Your task to perform on an android device: turn on data saver in the chrome app Image 0: 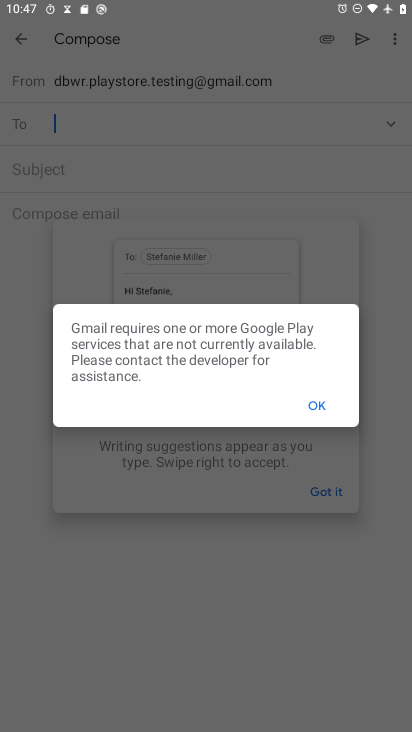
Step 0: press home button
Your task to perform on an android device: turn on data saver in the chrome app Image 1: 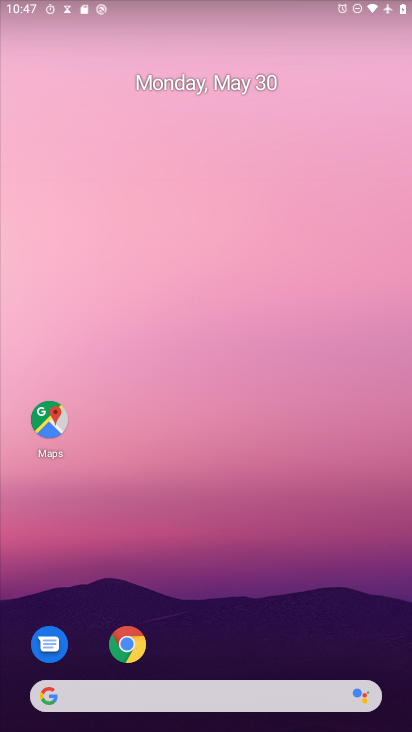
Step 1: drag from (272, 614) to (296, 47)
Your task to perform on an android device: turn on data saver in the chrome app Image 2: 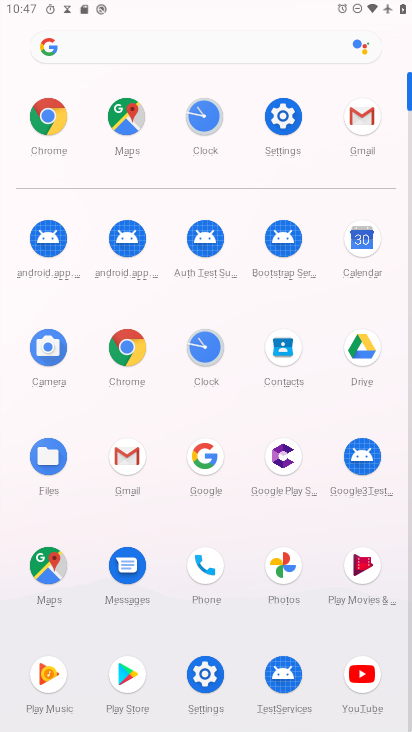
Step 2: click (127, 353)
Your task to perform on an android device: turn on data saver in the chrome app Image 3: 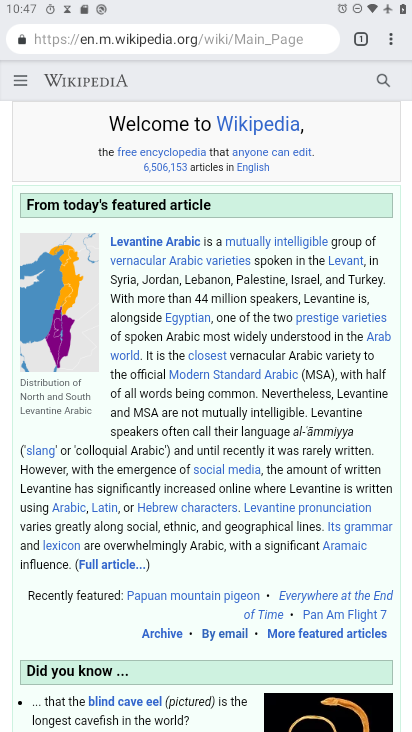
Step 3: click (386, 49)
Your task to perform on an android device: turn on data saver in the chrome app Image 4: 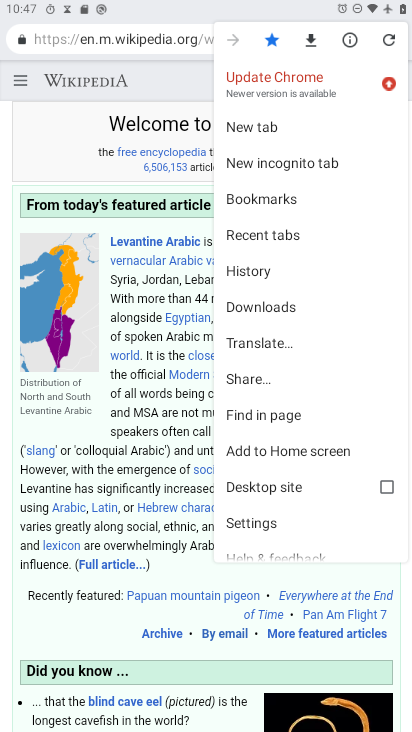
Step 4: drag from (302, 419) to (315, 207)
Your task to perform on an android device: turn on data saver in the chrome app Image 5: 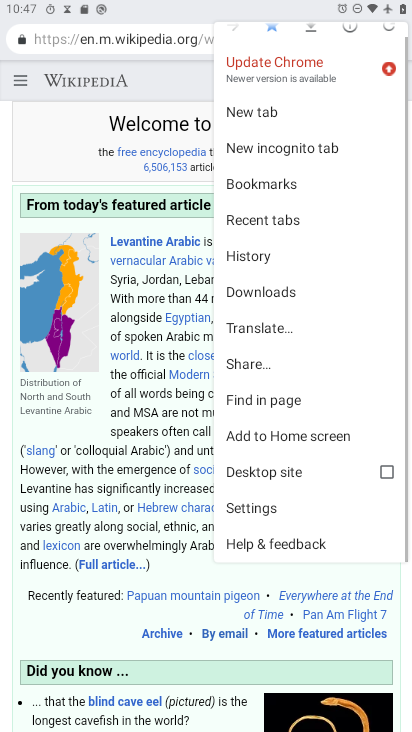
Step 5: click (269, 513)
Your task to perform on an android device: turn on data saver in the chrome app Image 6: 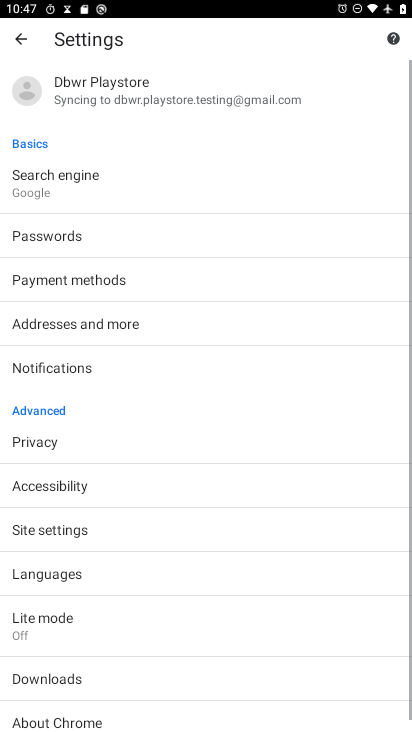
Step 6: drag from (202, 582) to (205, 344)
Your task to perform on an android device: turn on data saver in the chrome app Image 7: 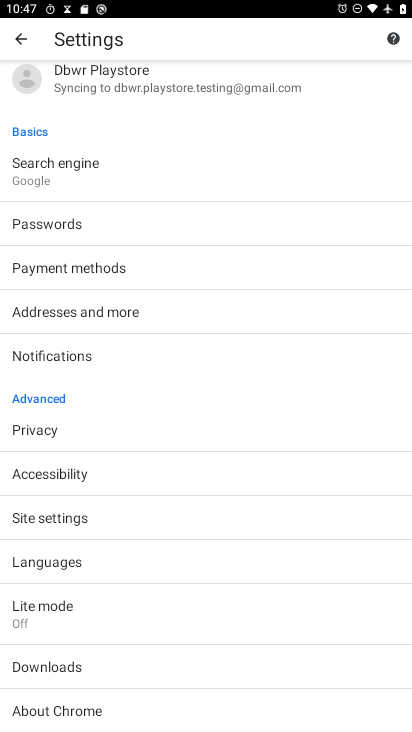
Step 7: click (77, 630)
Your task to perform on an android device: turn on data saver in the chrome app Image 8: 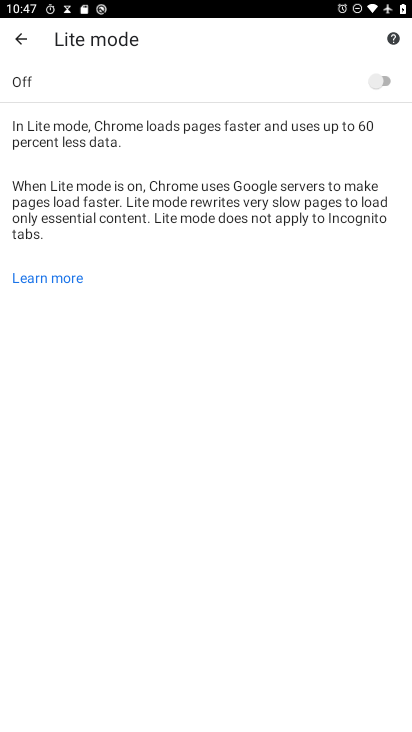
Step 8: click (382, 81)
Your task to perform on an android device: turn on data saver in the chrome app Image 9: 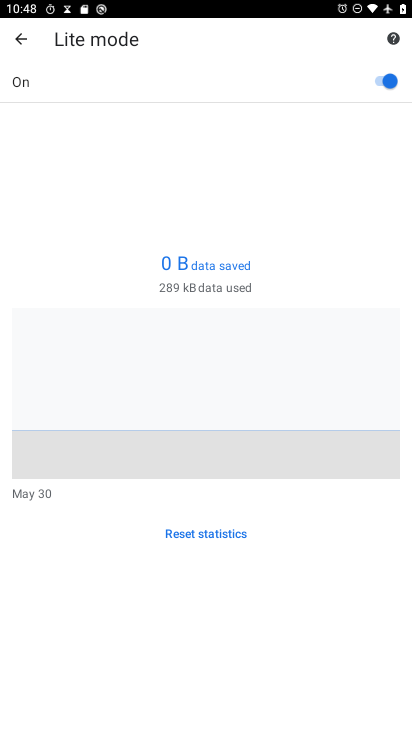
Step 9: task complete